Your task to perform on an android device: toggle notification dots Image 0: 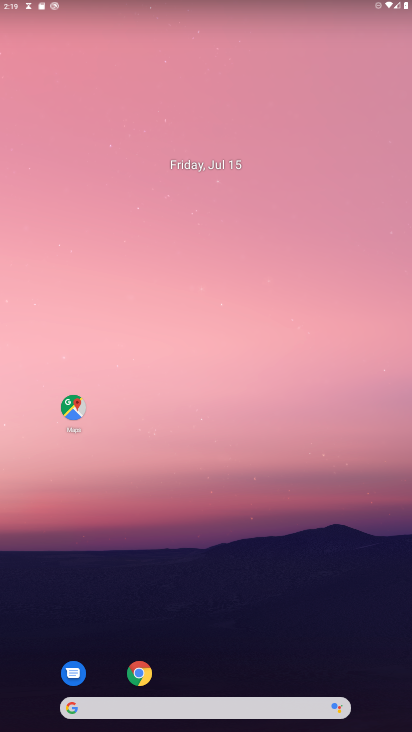
Step 0: drag from (237, 698) to (237, 387)
Your task to perform on an android device: toggle notification dots Image 1: 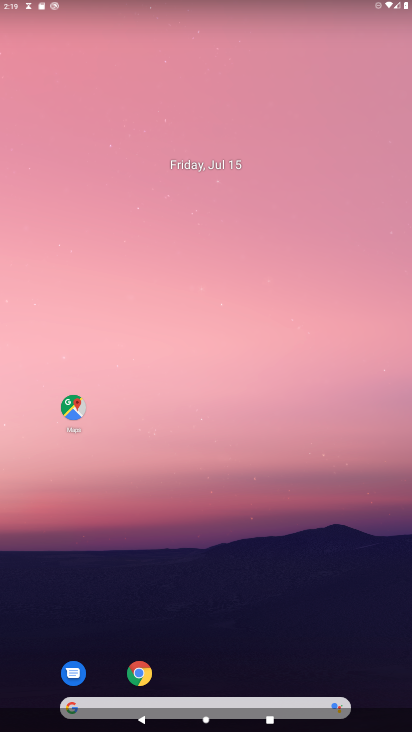
Step 1: drag from (141, 700) to (230, 201)
Your task to perform on an android device: toggle notification dots Image 2: 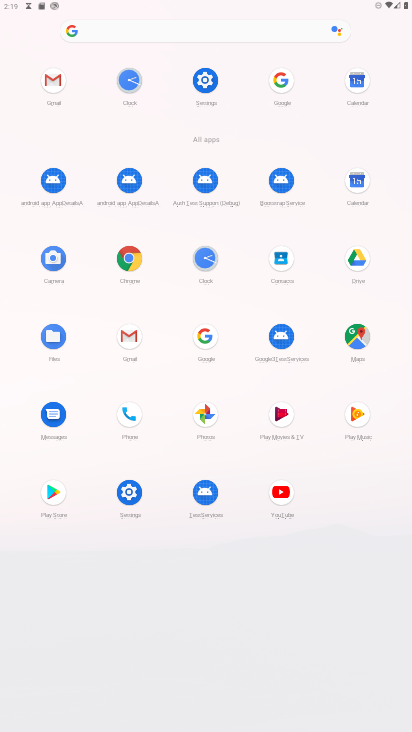
Step 2: click (213, 81)
Your task to perform on an android device: toggle notification dots Image 3: 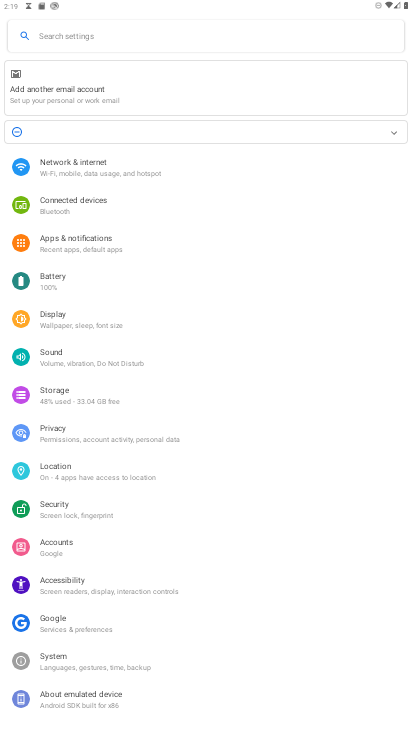
Step 3: click (69, 243)
Your task to perform on an android device: toggle notification dots Image 4: 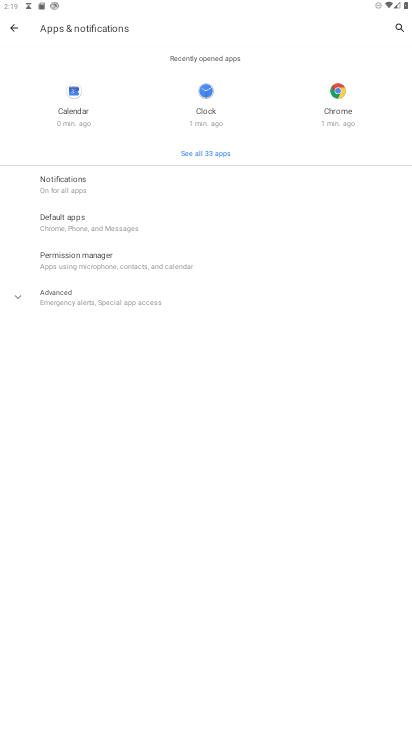
Step 4: click (63, 187)
Your task to perform on an android device: toggle notification dots Image 5: 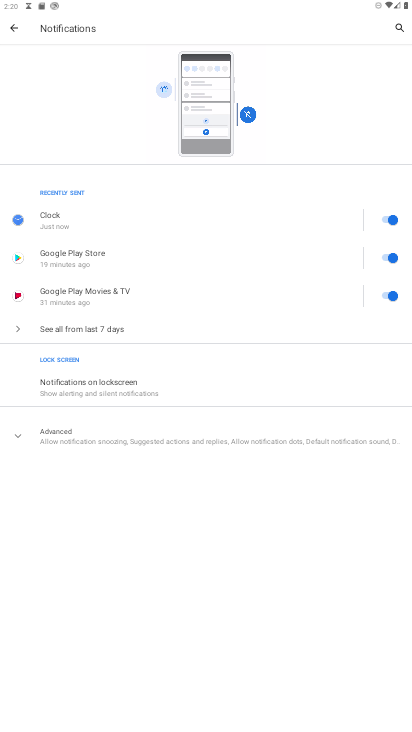
Step 5: click (59, 425)
Your task to perform on an android device: toggle notification dots Image 6: 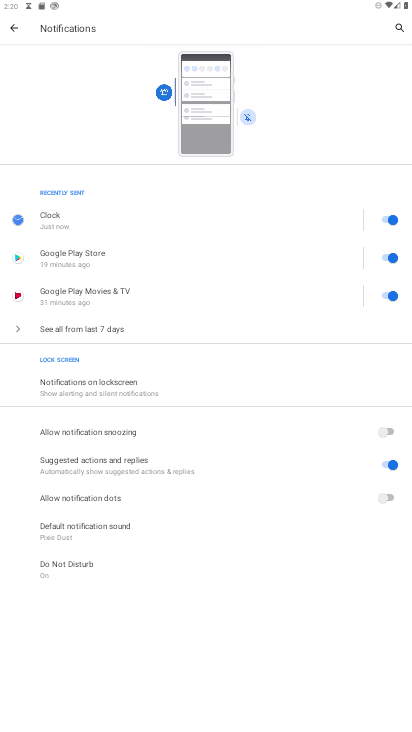
Step 6: click (390, 493)
Your task to perform on an android device: toggle notification dots Image 7: 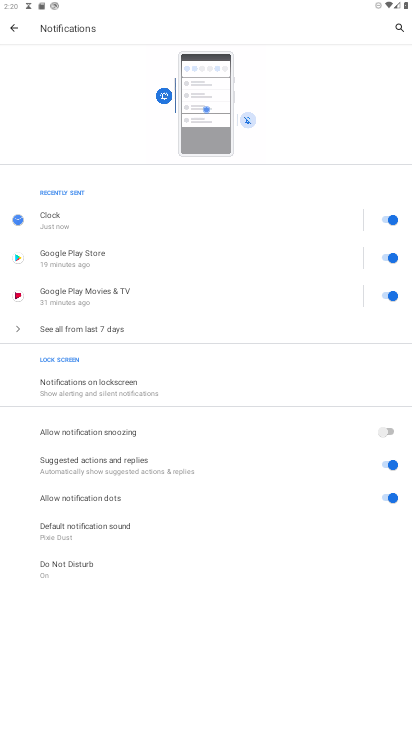
Step 7: task complete